Your task to perform on an android device: Open sound settings Image 0: 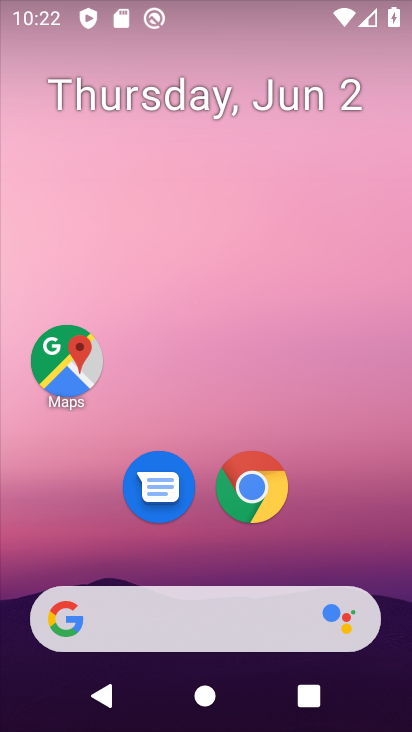
Step 0: drag from (292, 653) to (325, 79)
Your task to perform on an android device: Open sound settings Image 1: 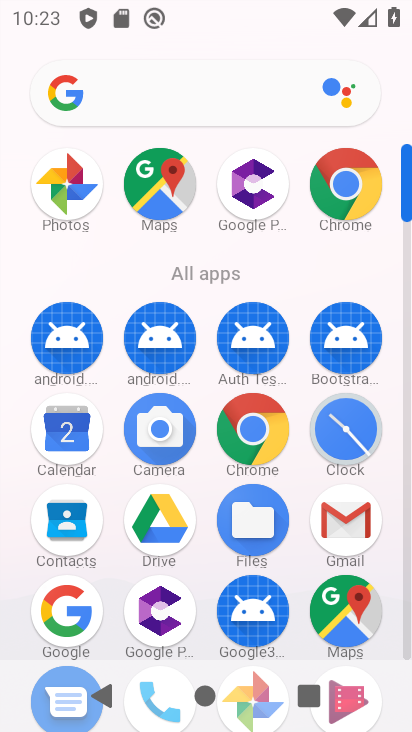
Step 1: drag from (199, 548) to (246, 320)
Your task to perform on an android device: Open sound settings Image 2: 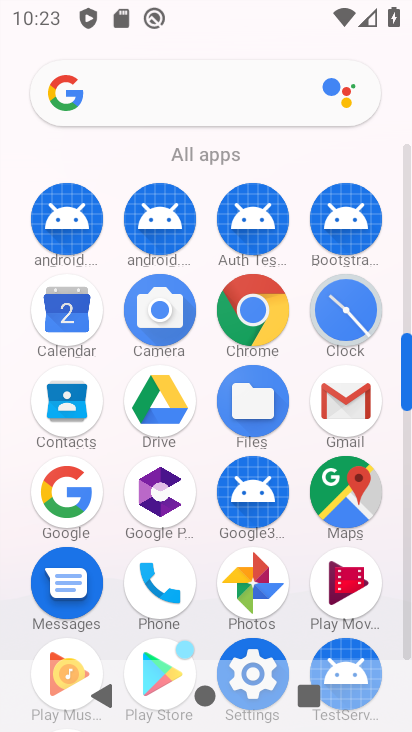
Step 2: click (255, 635)
Your task to perform on an android device: Open sound settings Image 3: 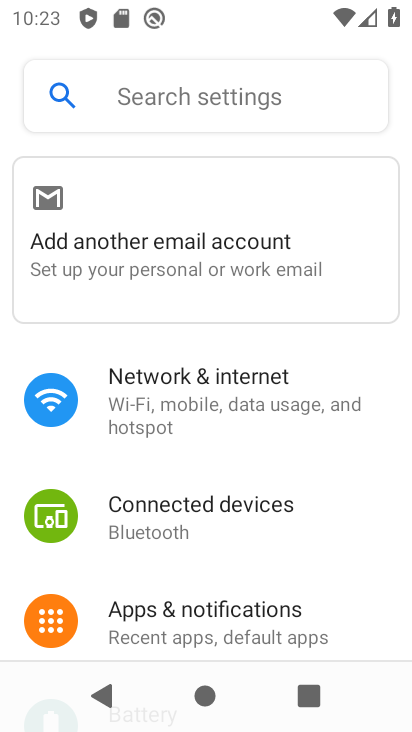
Step 3: click (188, 82)
Your task to perform on an android device: Open sound settings Image 4: 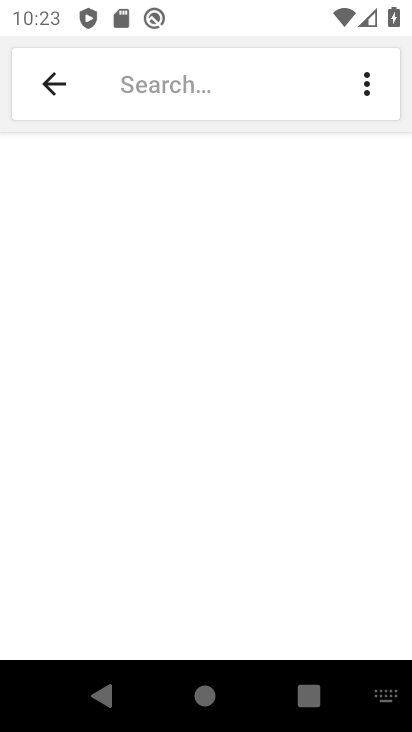
Step 4: click (376, 690)
Your task to perform on an android device: Open sound settings Image 5: 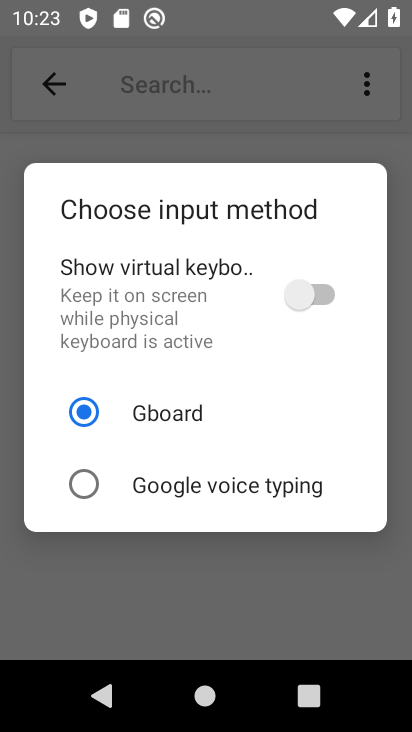
Step 5: click (313, 289)
Your task to perform on an android device: Open sound settings Image 6: 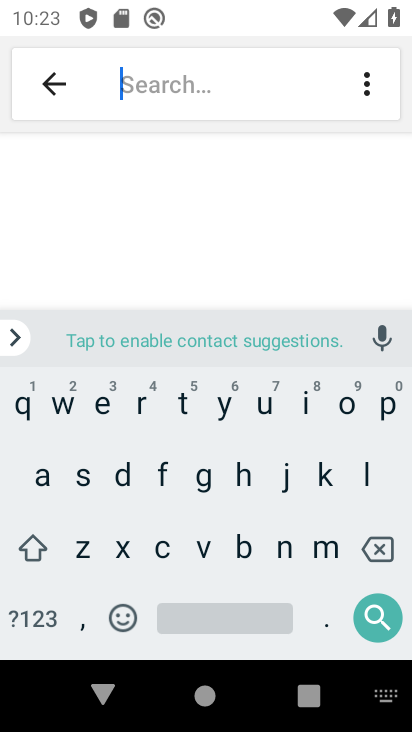
Step 6: click (81, 471)
Your task to perform on an android device: Open sound settings Image 7: 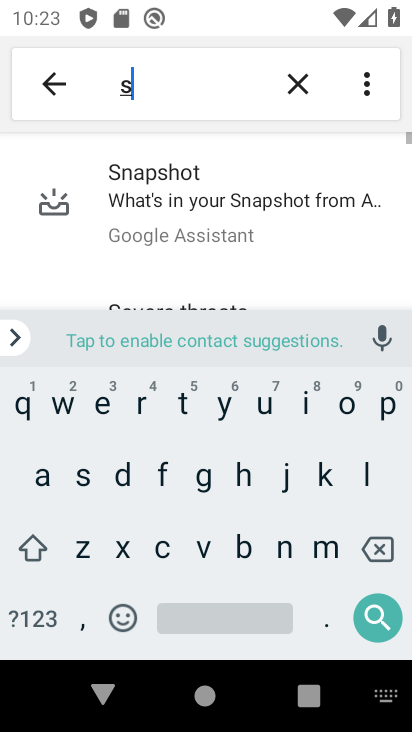
Step 7: click (340, 403)
Your task to perform on an android device: Open sound settings Image 8: 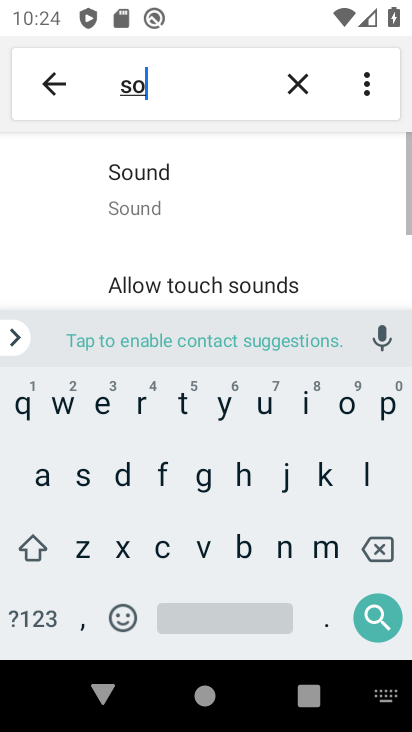
Step 8: click (150, 180)
Your task to perform on an android device: Open sound settings Image 9: 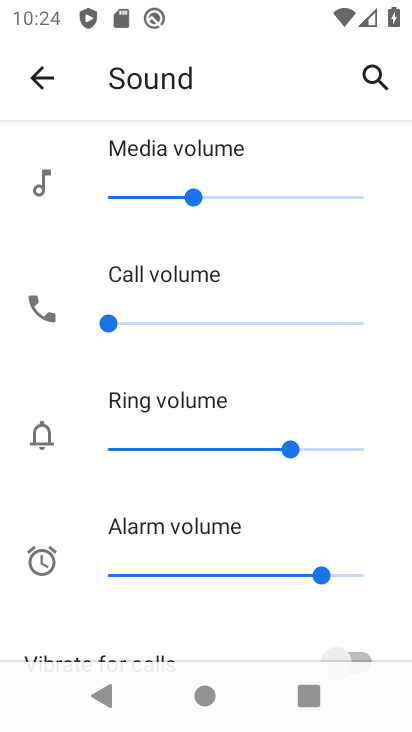
Step 9: task complete